Your task to perform on an android device: Go to Google maps Image 0: 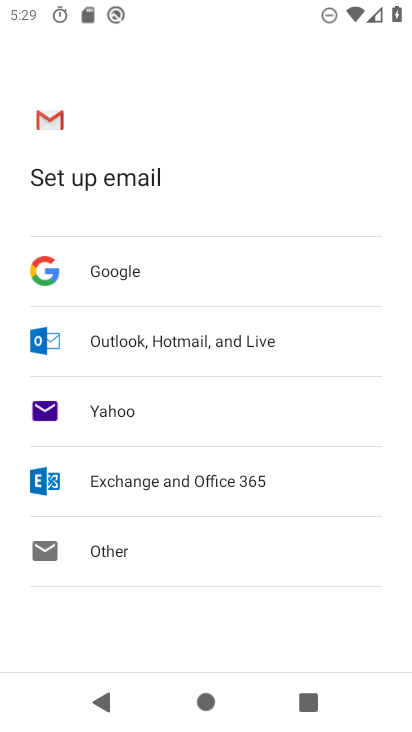
Step 0: press home button
Your task to perform on an android device: Go to Google maps Image 1: 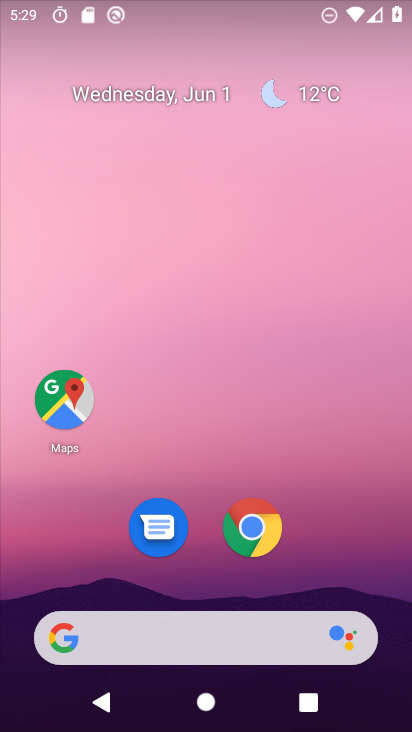
Step 1: click (57, 409)
Your task to perform on an android device: Go to Google maps Image 2: 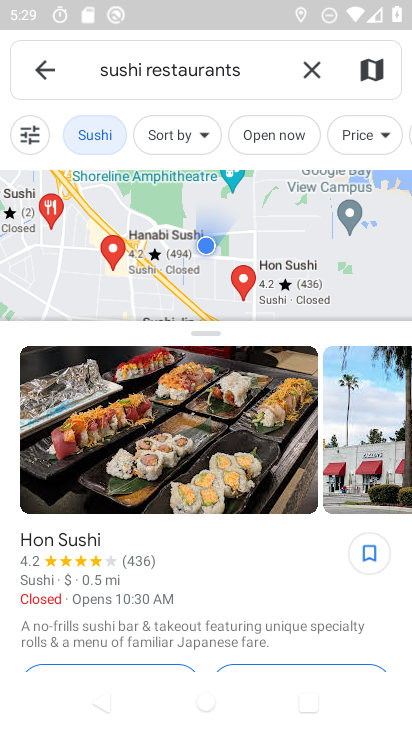
Step 2: task complete